Your task to perform on an android device: Open Google Chrome and click the shortcut for Amazon.com Image 0: 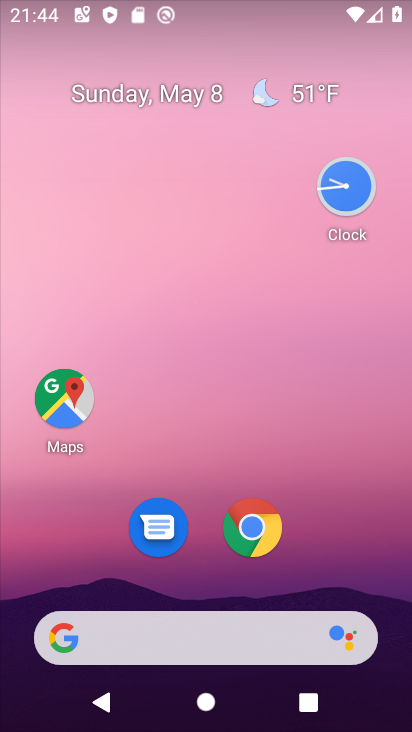
Step 0: click (247, 532)
Your task to perform on an android device: Open Google Chrome and click the shortcut for Amazon.com Image 1: 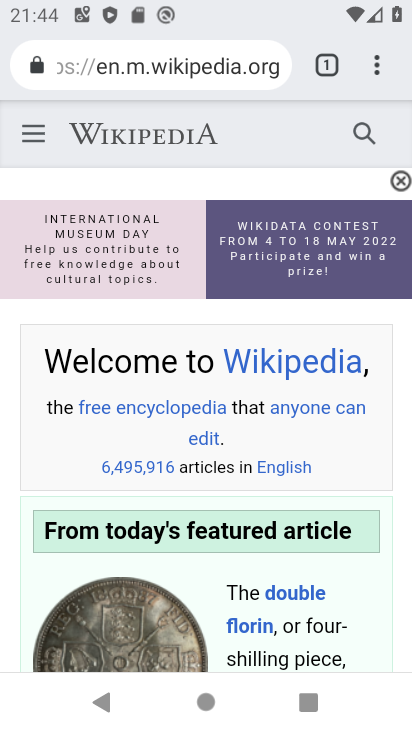
Step 1: click (321, 57)
Your task to perform on an android device: Open Google Chrome and click the shortcut for Amazon.com Image 2: 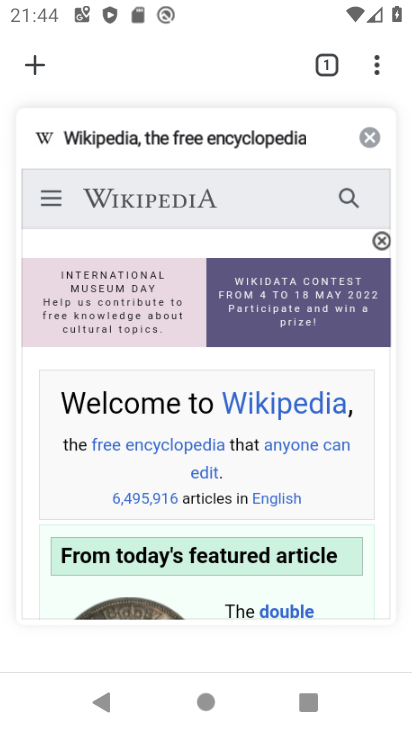
Step 2: click (33, 55)
Your task to perform on an android device: Open Google Chrome and click the shortcut for Amazon.com Image 3: 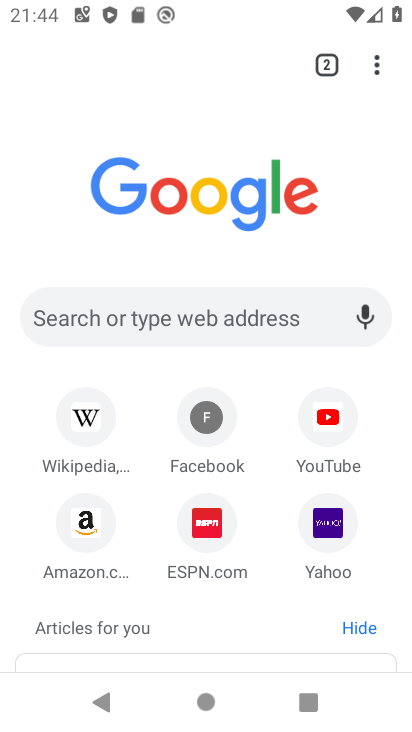
Step 3: click (83, 537)
Your task to perform on an android device: Open Google Chrome and click the shortcut for Amazon.com Image 4: 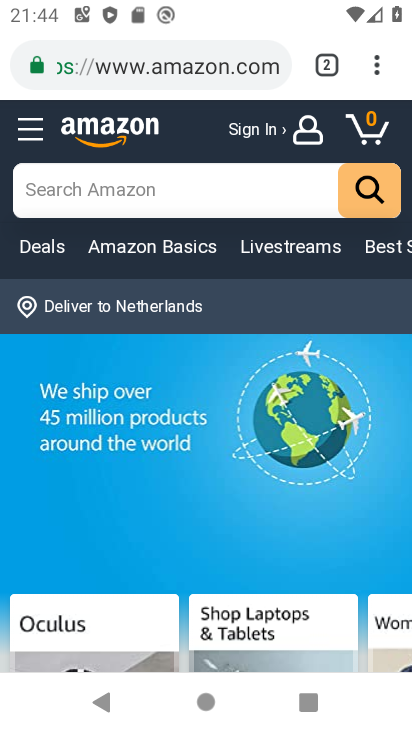
Step 4: task complete